Your task to perform on an android device: turn on bluetooth scan Image 0: 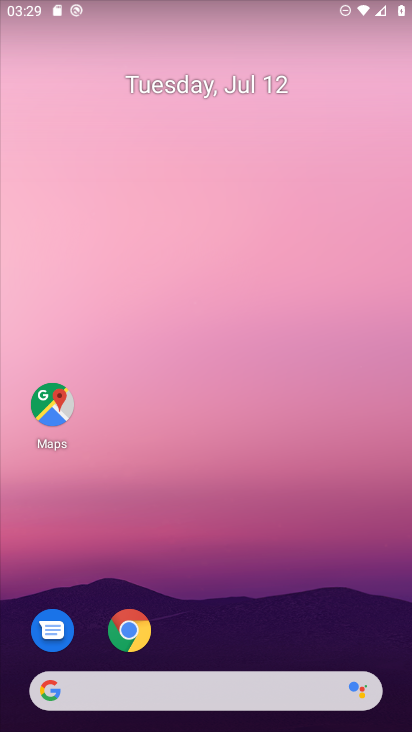
Step 0: drag from (359, 620) to (353, 134)
Your task to perform on an android device: turn on bluetooth scan Image 1: 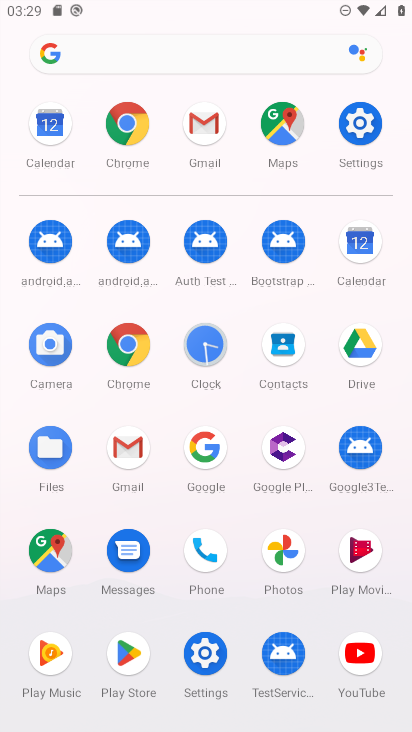
Step 1: click (206, 655)
Your task to perform on an android device: turn on bluetooth scan Image 2: 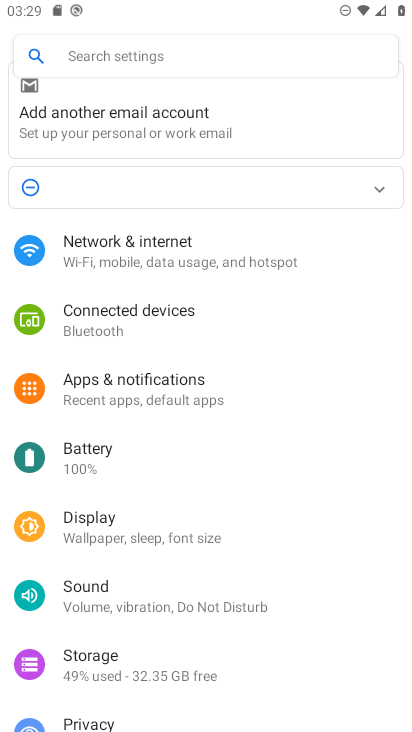
Step 2: drag from (342, 629) to (339, 363)
Your task to perform on an android device: turn on bluetooth scan Image 3: 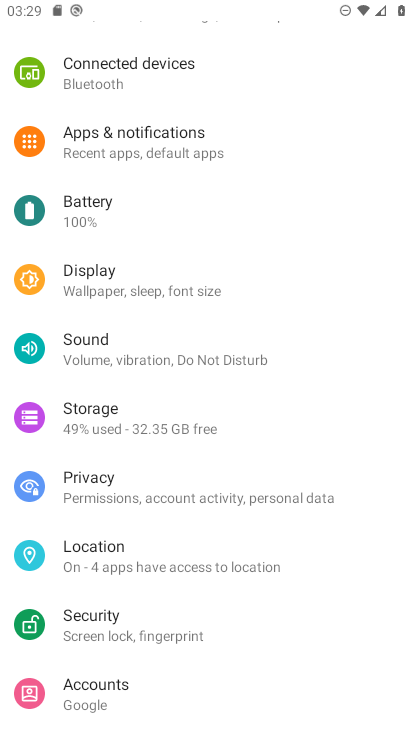
Step 3: click (96, 550)
Your task to perform on an android device: turn on bluetooth scan Image 4: 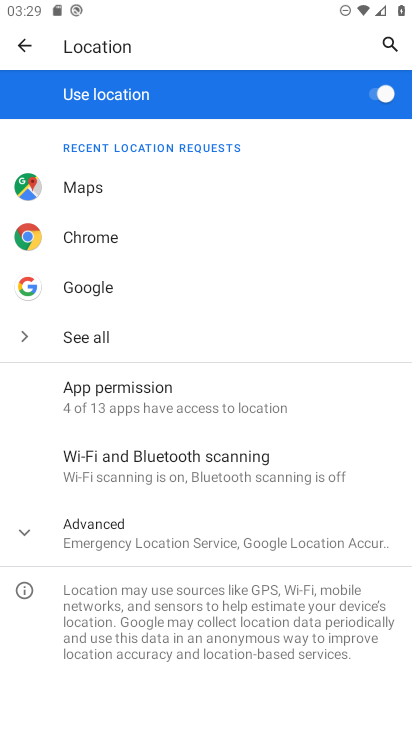
Step 4: click (152, 463)
Your task to perform on an android device: turn on bluetooth scan Image 5: 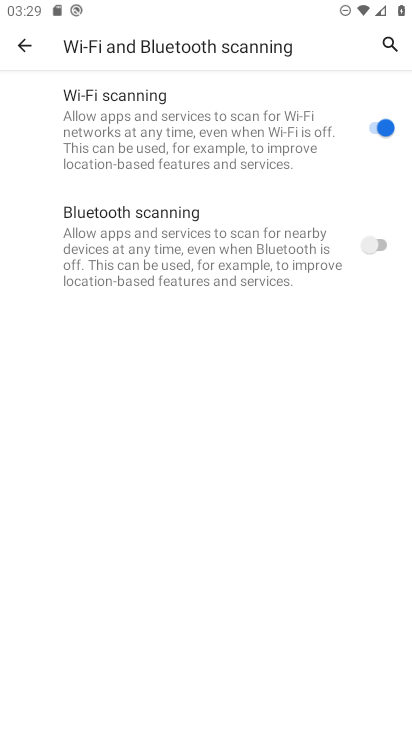
Step 5: click (378, 247)
Your task to perform on an android device: turn on bluetooth scan Image 6: 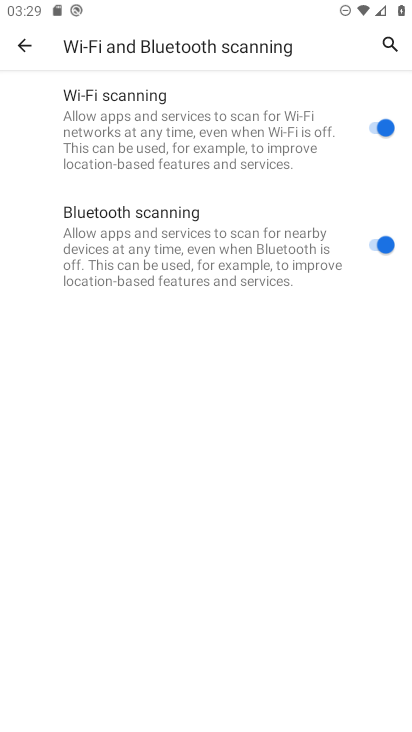
Step 6: task complete